Your task to perform on an android device: turn off improve location accuracy Image 0: 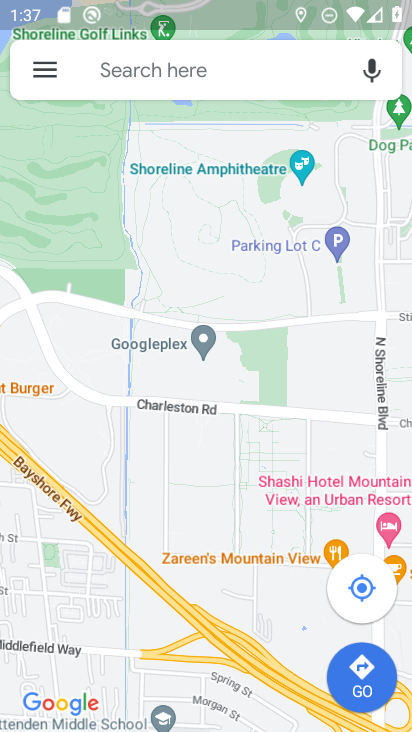
Step 0: press home button
Your task to perform on an android device: turn off improve location accuracy Image 1: 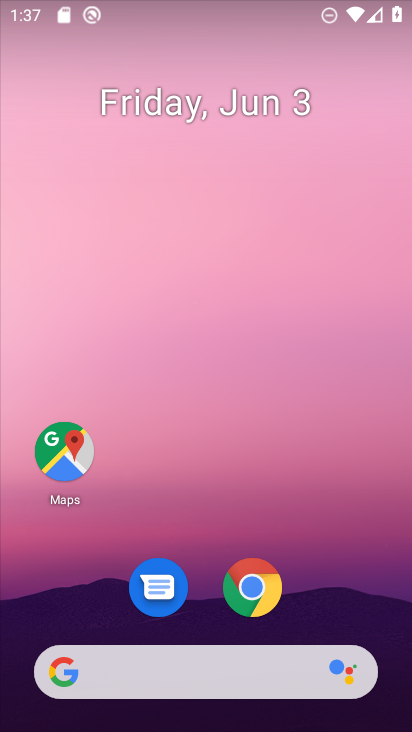
Step 1: drag from (337, 608) to (339, 28)
Your task to perform on an android device: turn off improve location accuracy Image 2: 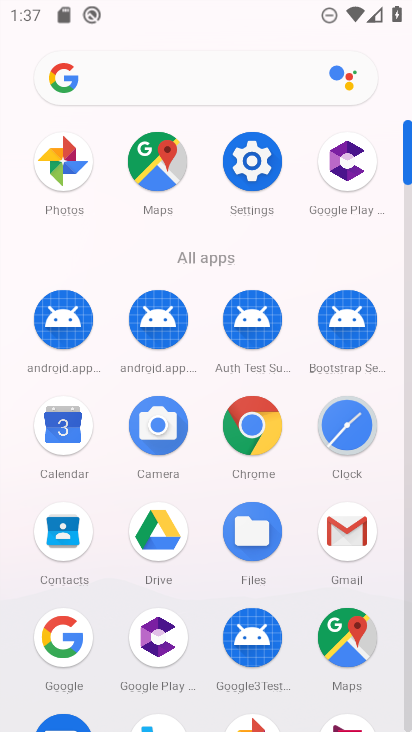
Step 2: click (248, 174)
Your task to perform on an android device: turn off improve location accuracy Image 3: 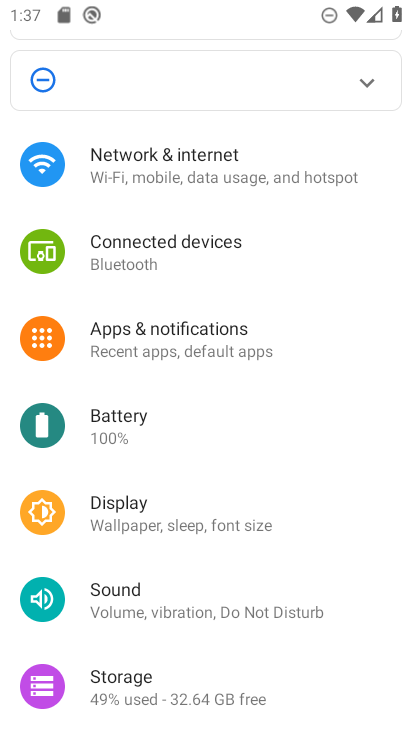
Step 3: drag from (214, 627) to (214, 267)
Your task to perform on an android device: turn off improve location accuracy Image 4: 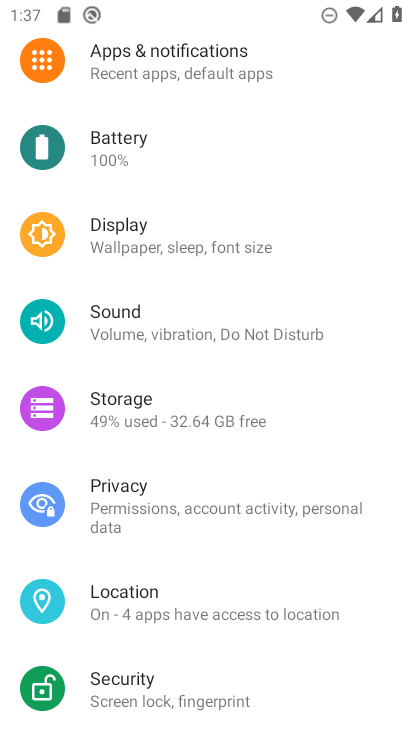
Step 4: click (179, 628)
Your task to perform on an android device: turn off improve location accuracy Image 5: 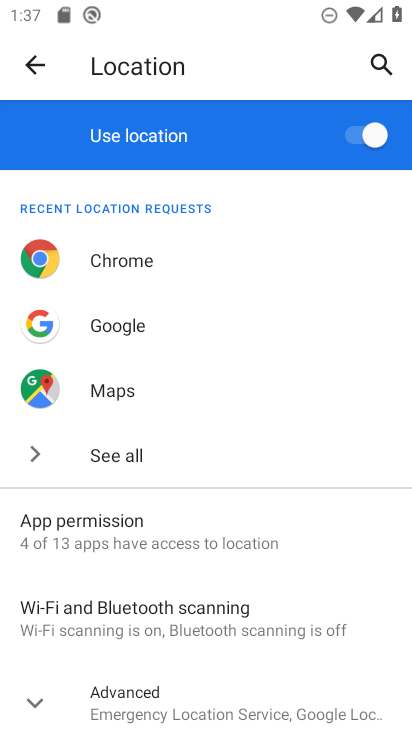
Step 5: click (122, 694)
Your task to perform on an android device: turn off improve location accuracy Image 6: 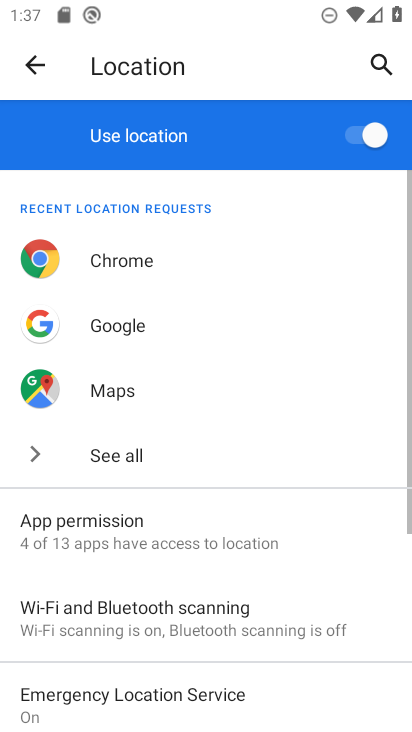
Step 6: drag from (154, 674) to (190, 161)
Your task to perform on an android device: turn off improve location accuracy Image 7: 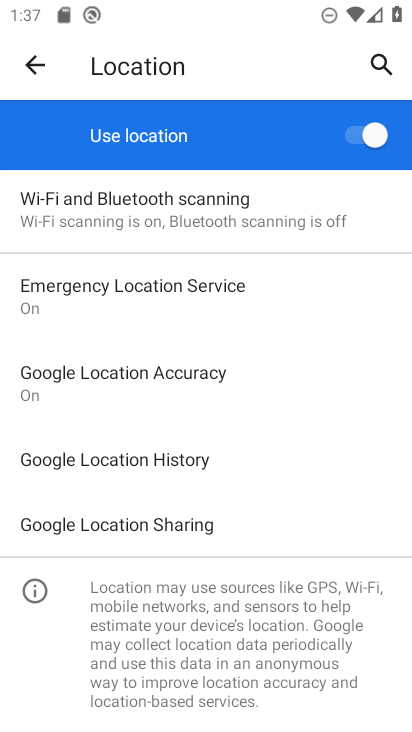
Step 7: click (120, 375)
Your task to perform on an android device: turn off improve location accuracy Image 8: 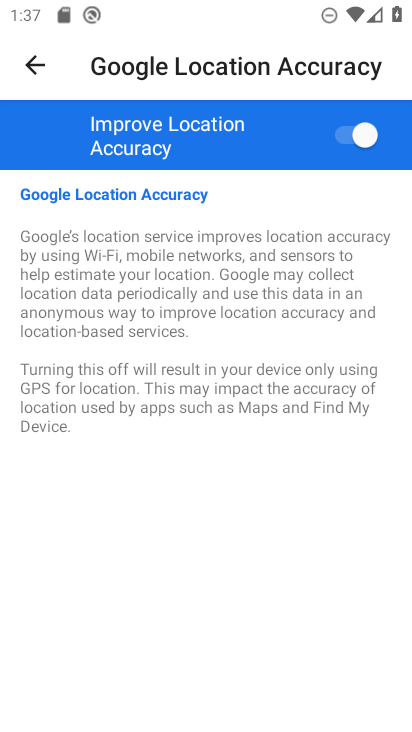
Step 8: click (350, 129)
Your task to perform on an android device: turn off improve location accuracy Image 9: 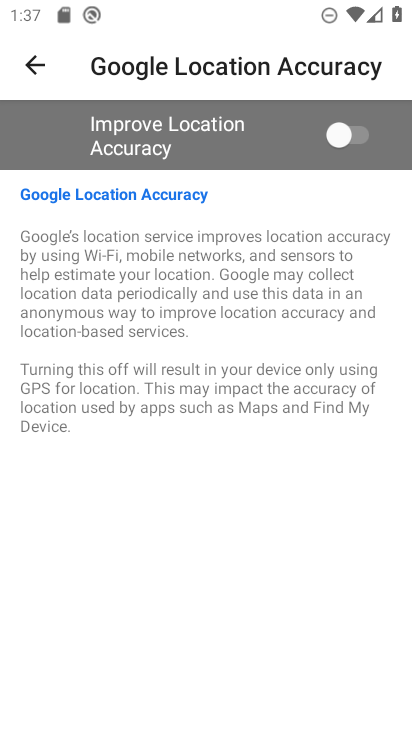
Step 9: task complete